Your task to perform on an android device: change the clock display to show seconds Image 0: 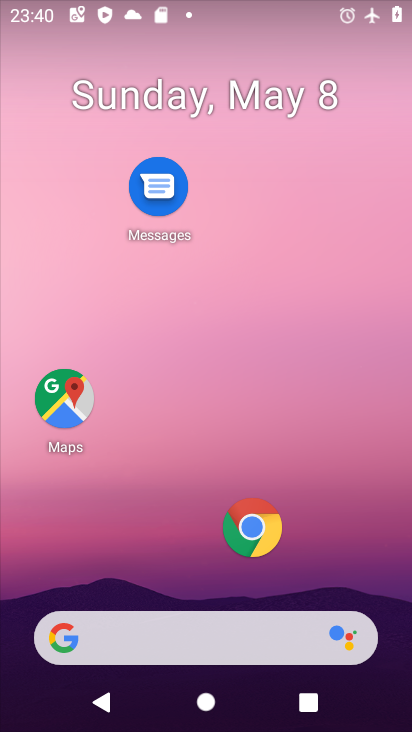
Step 0: drag from (162, 563) to (166, 94)
Your task to perform on an android device: change the clock display to show seconds Image 1: 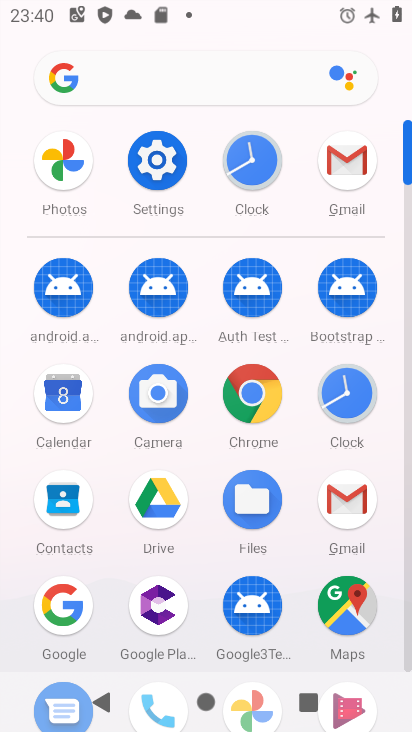
Step 1: click (354, 397)
Your task to perform on an android device: change the clock display to show seconds Image 2: 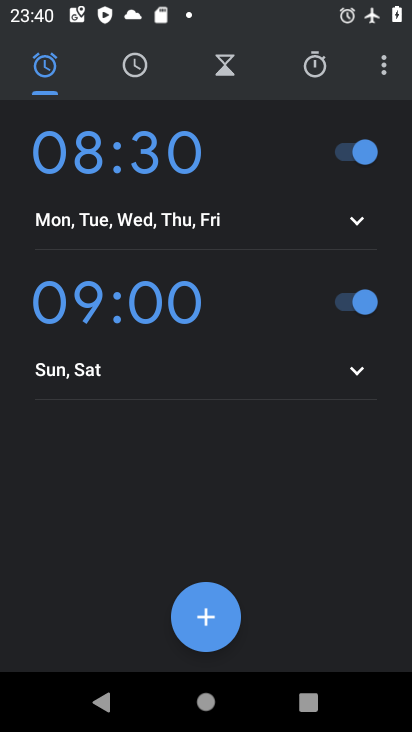
Step 2: click (367, 57)
Your task to perform on an android device: change the clock display to show seconds Image 3: 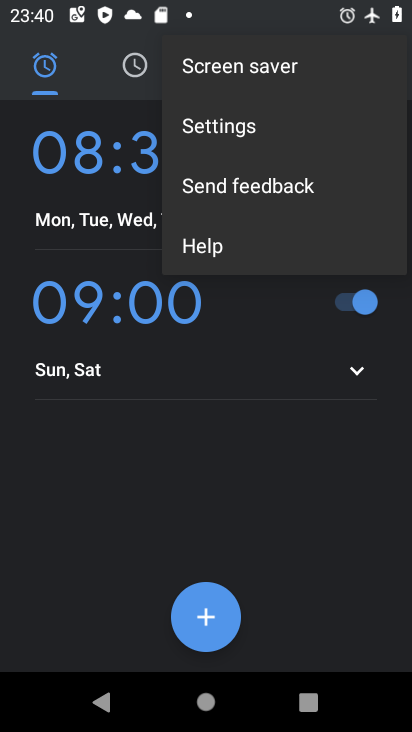
Step 3: click (228, 136)
Your task to perform on an android device: change the clock display to show seconds Image 4: 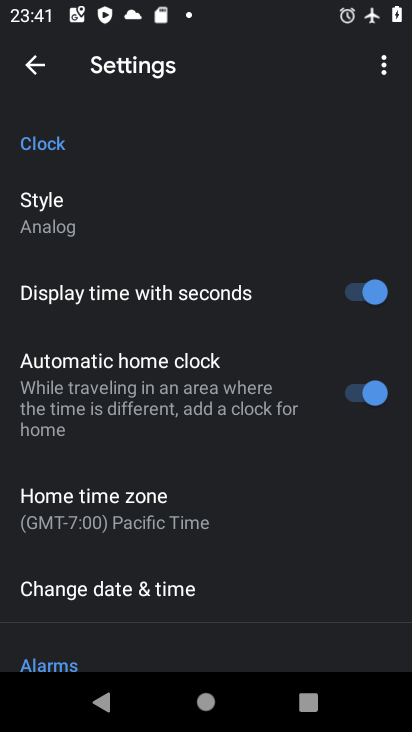
Step 4: click (371, 283)
Your task to perform on an android device: change the clock display to show seconds Image 5: 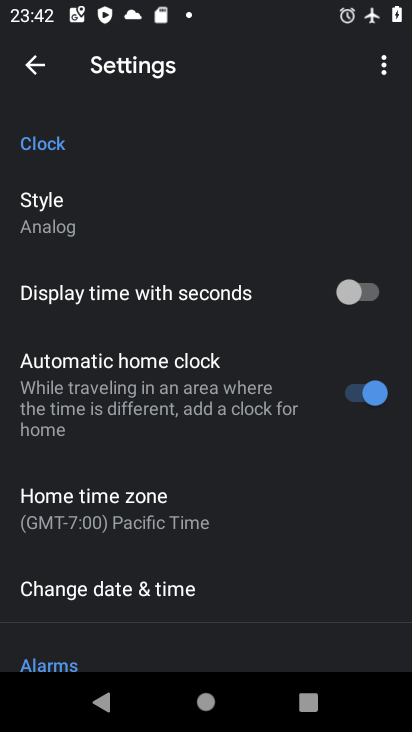
Step 5: task complete